Your task to perform on an android device: Open eBay Image 0: 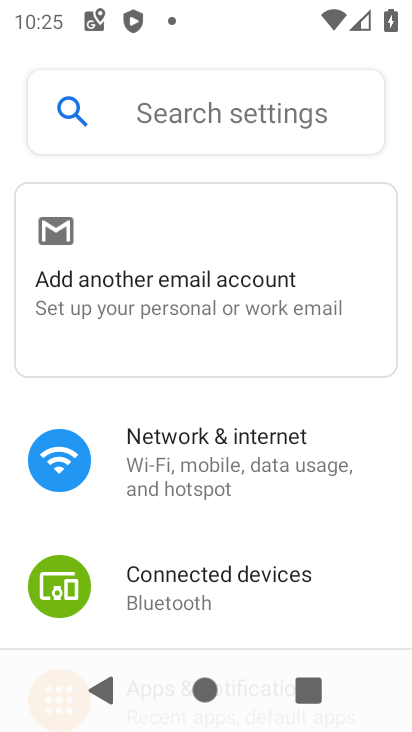
Step 0: press home button
Your task to perform on an android device: Open eBay Image 1: 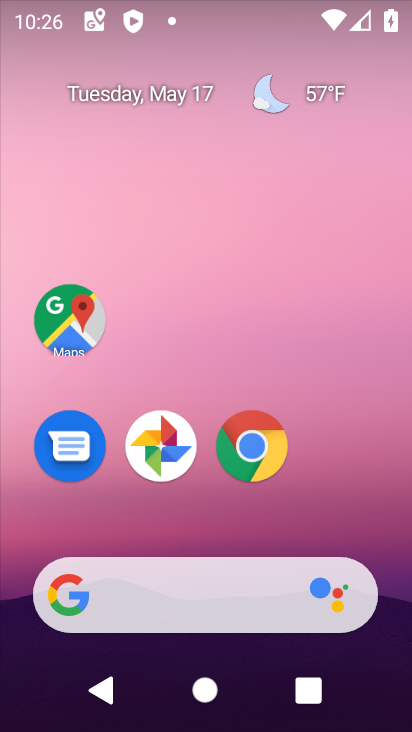
Step 1: click (240, 446)
Your task to perform on an android device: Open eBay Image 2: 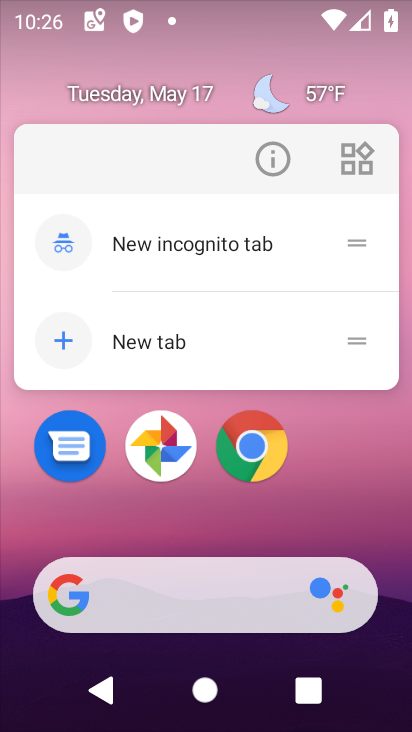
Step 2: click (248, 438)
Your task to perform on an android device: Open eBay Image 3: 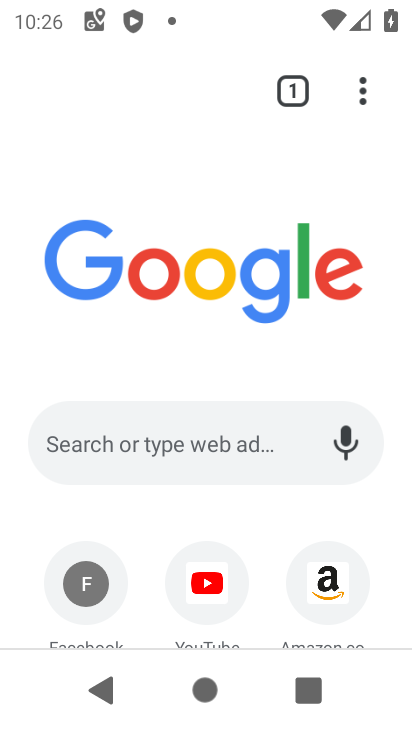
Step 3: click (160, 451)
Your task to perform on an android device: Open eBay Image 4: 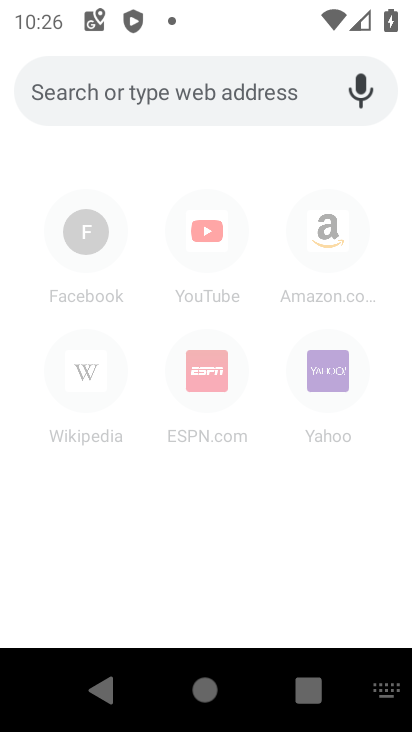
Step 4: type "ebay"
Your task to perform on an android device: Open eBay Image 5: 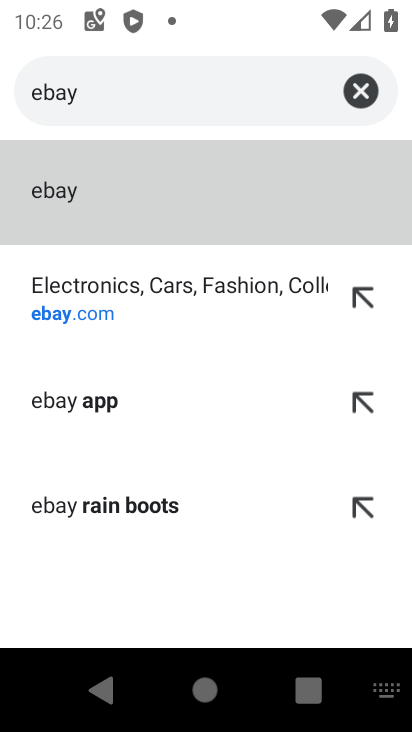
Step 5: click (248, 292)
Your task to perform on an android device: Open eBay Image 6: 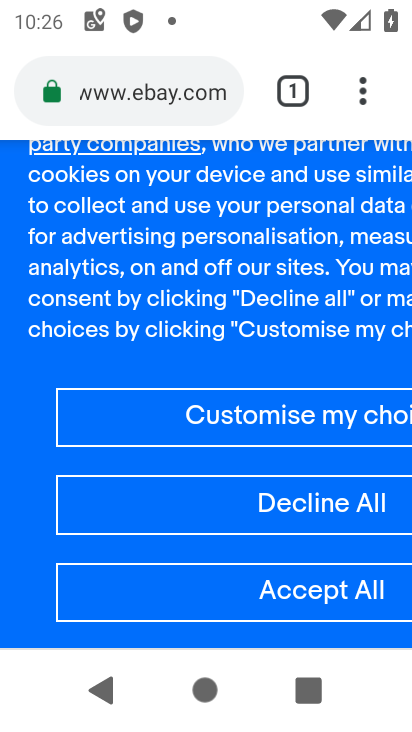
Step 6: task complete